Your task to perform on an android device: Do I have any events today? Image 0: 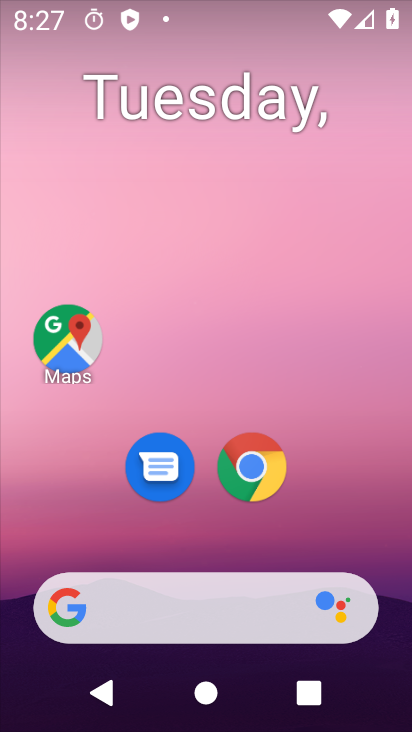
Step 0: drag from (356, 549) to (316, 118)
Your task to perform on an android device: Do I have any events today? Image 1: 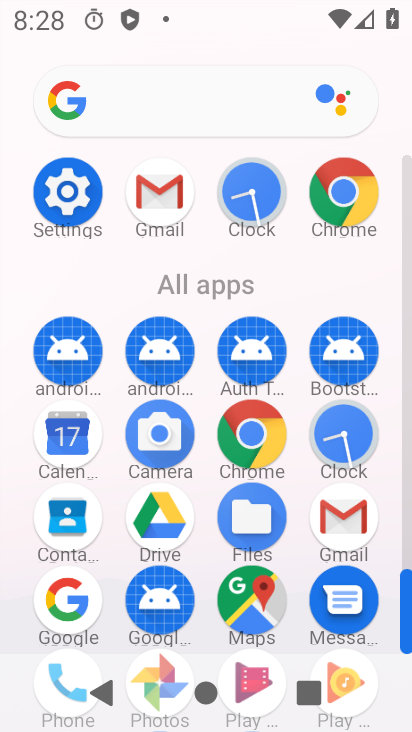
Step 1: click (63, 442)
Your task to perform on an android device: Do I have any events today? Image 2: 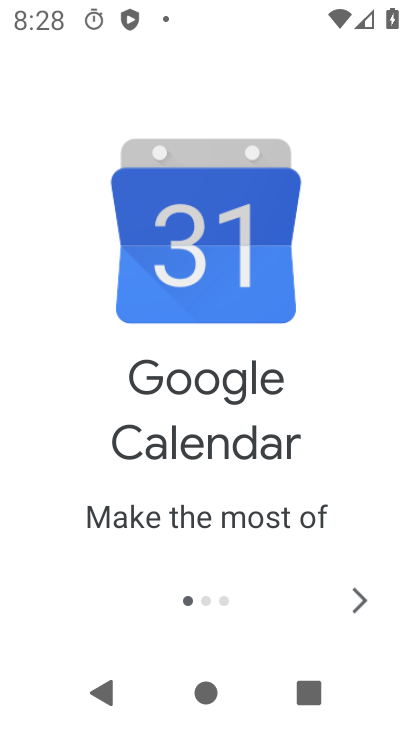
Step 2: click (360, 599)
Your task to perform on an android device: Do I have any events today? Image 3: 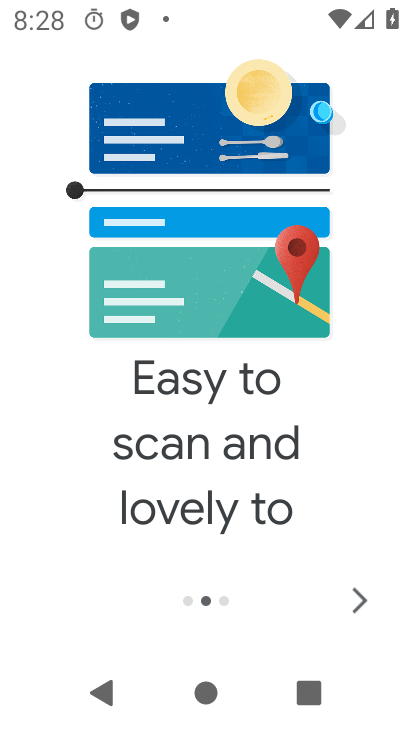
Step 3: click (360, 599)
Your task to perform on an android device: Do I have any events today? Image 4: 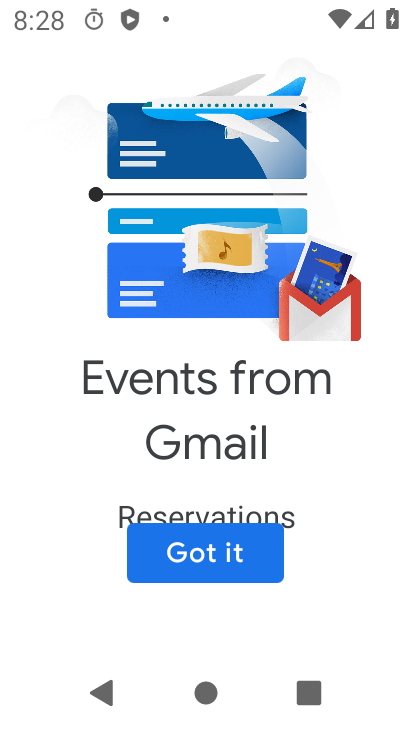
Step 4: click (219, 555)
Your task to perform on an android device: Do I have any events today? Image 5: 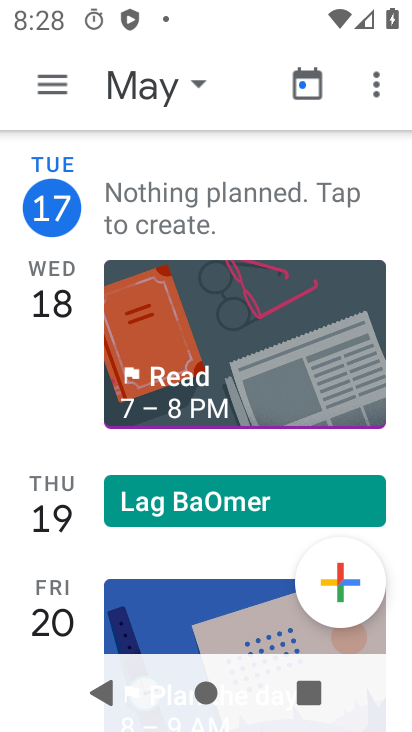
Step 5: click (75, 90)
Your task to perform on an android device: Do I have any events today? Image 6: 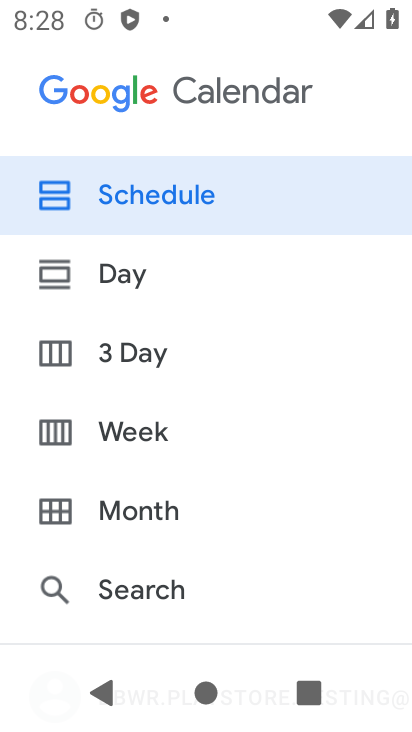
Step 6: click (144, 279)
Your task to perform on an android device: Do I have any events today? Image 7: 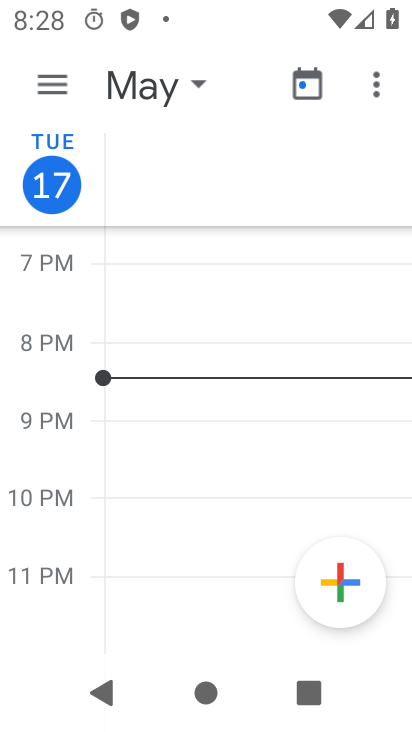
Step 7: click (182, 91)
Your task to perform on an android device: Do I have any events today? Image 8: 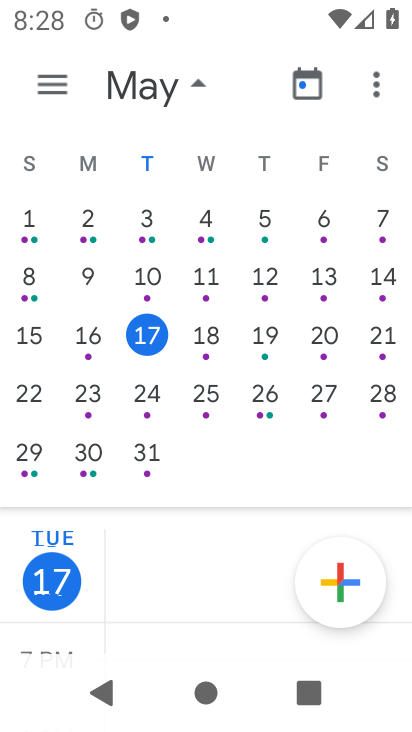
Step 8: click (201, 344)
Your task to perform on an android device: Do I have any events today? Image 9: 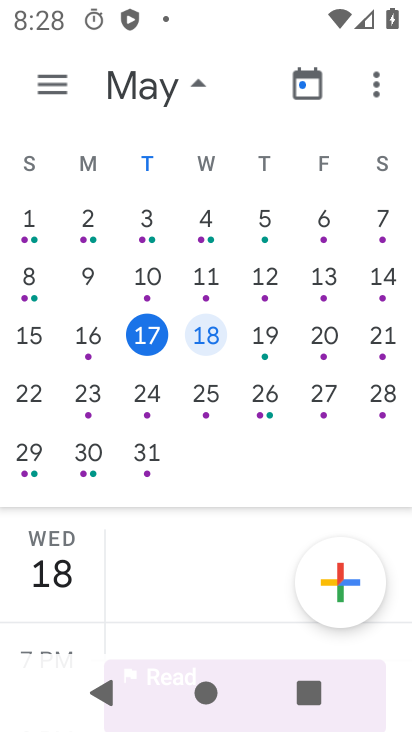
Step 9: click (165, 85)
Your task to perform on an android device: Do I have any events today? Image 10: 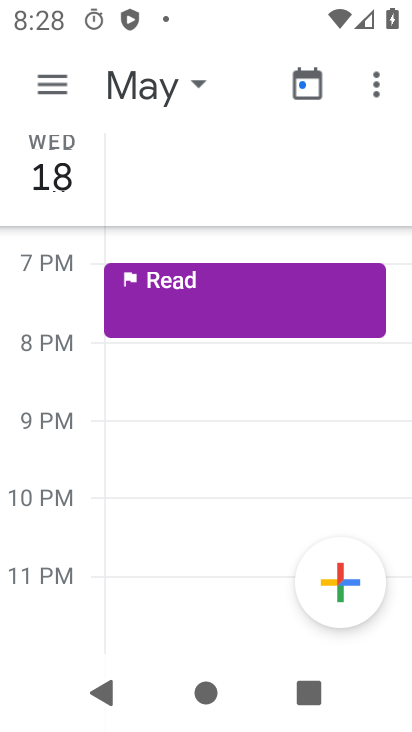
Step 10: task complete